Your task to perform on an android device: Do I have any events tomorrow? Image 0: 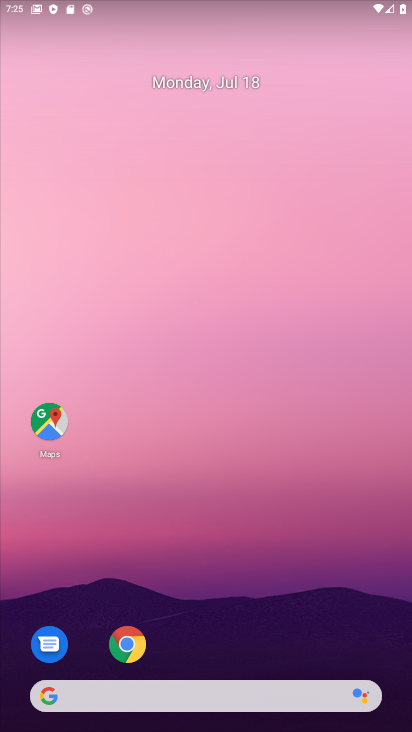
Step 0: drag from (242, 689) to (346, 195)
Your task to perform on an android device: Do I have any events tomorrow? Image 1: 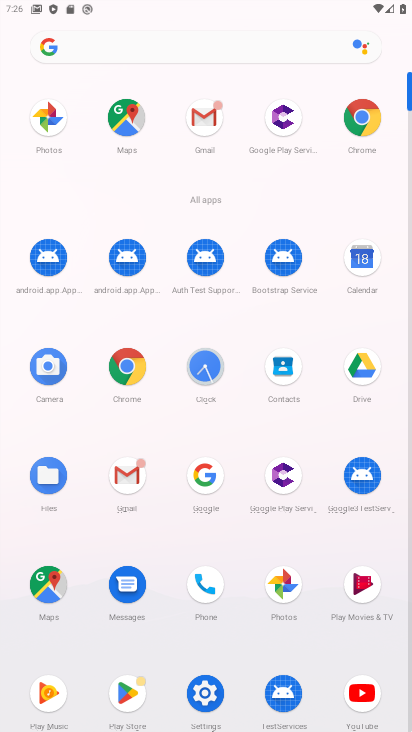
Step 1: click (359, 260)
Your task to perform on an android device: Do I have any events tomorrow? Image 2: 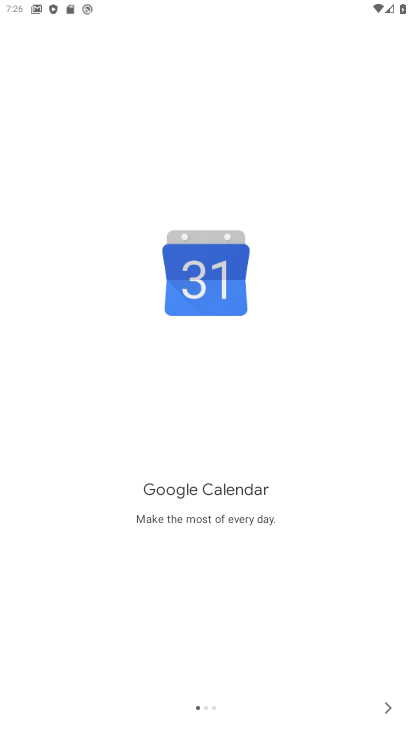
Step 2: click (392, 707)
Your task to perform on an android device: Do I have any events tomorrow? Image 3: 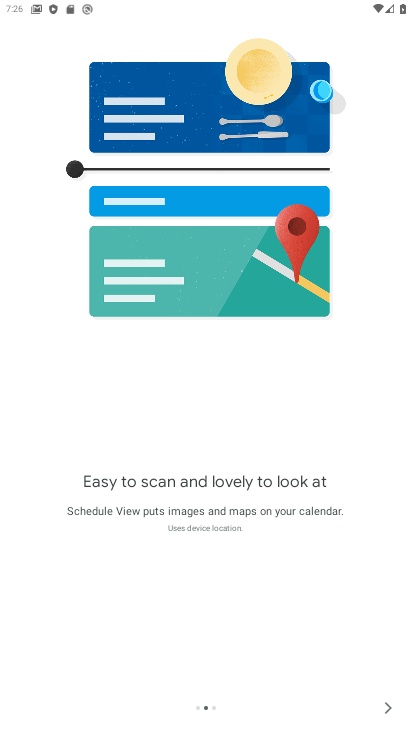
Step 3: click (394, 700)
Your task to perform on an android device: Do I have any events tomorrow? Image 4: 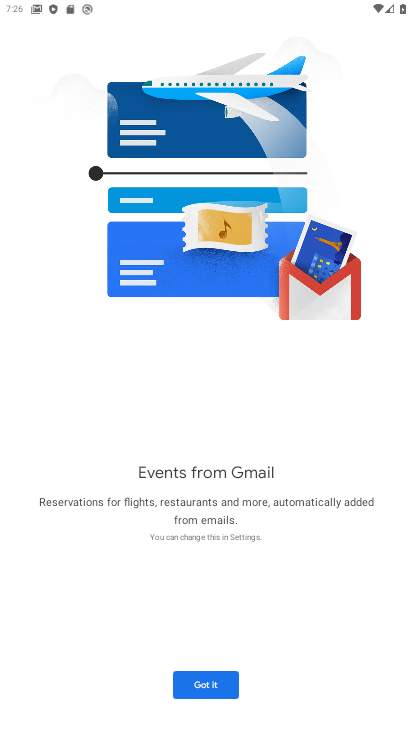
Step 4: click (216, 694)
Your task to perform on an android device: Do I have any events tomorrow? Image 5: 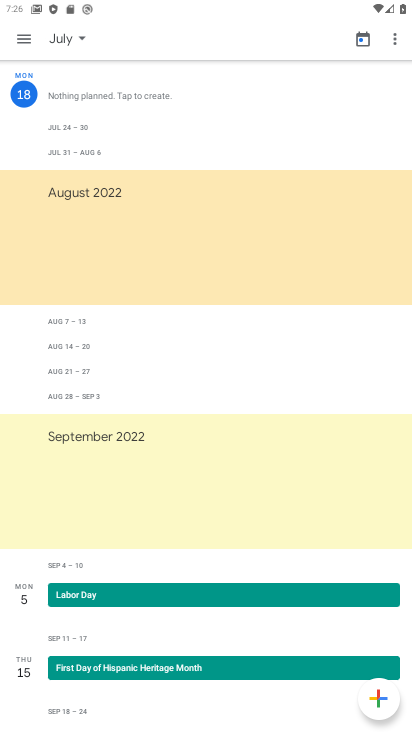
Step 5: click (64, 42)
Your task to perform on an android device: Do I have any events tomorrow? Image 6: 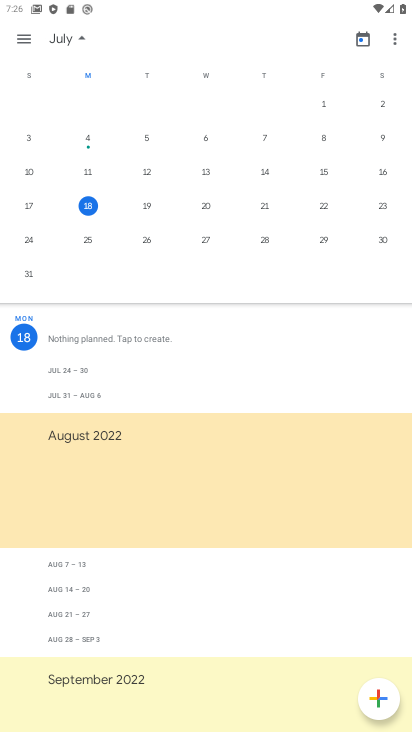
Step 6: click (154, 206)
Your task to perform on an android device: Do I have any events tomorrow? Image 7: 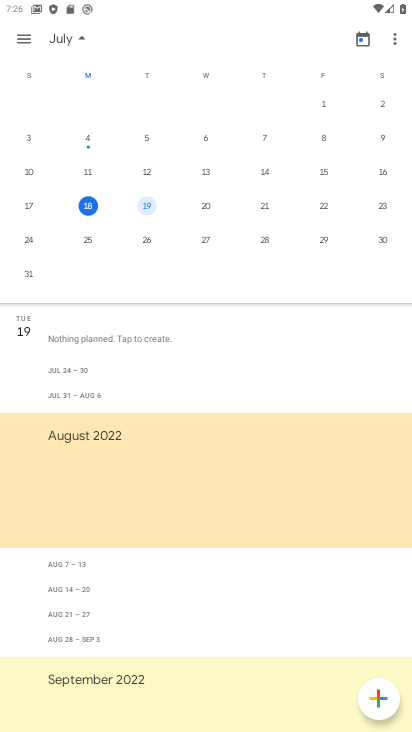
Step 7: click (22, 27)
Your task to perform on an android device: Do I have any events tomorrow? Image 8: 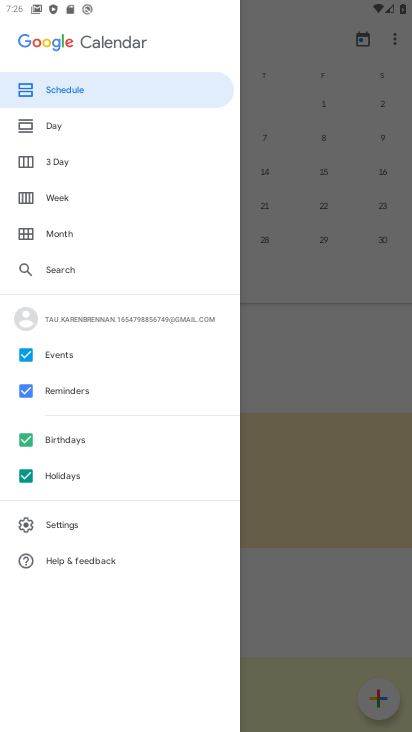
Step 8: click (82, 121)
Your task to perform on an android device: Do I have any events tomorrow? Image 9: 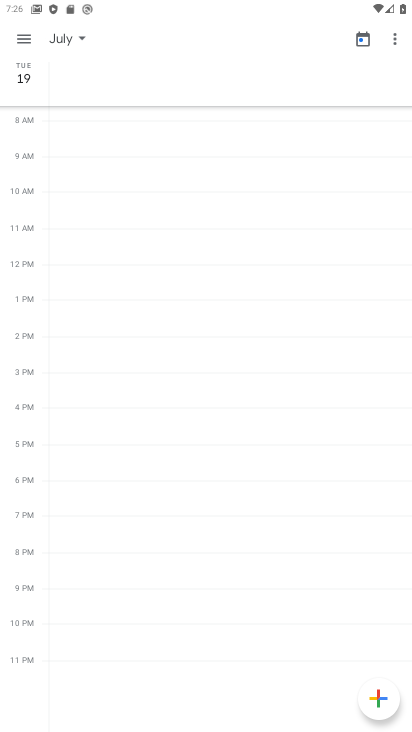
Step 9: click (27, 35)
Your task to perform on an android device: Do I have any events tomorrow? Image 10: 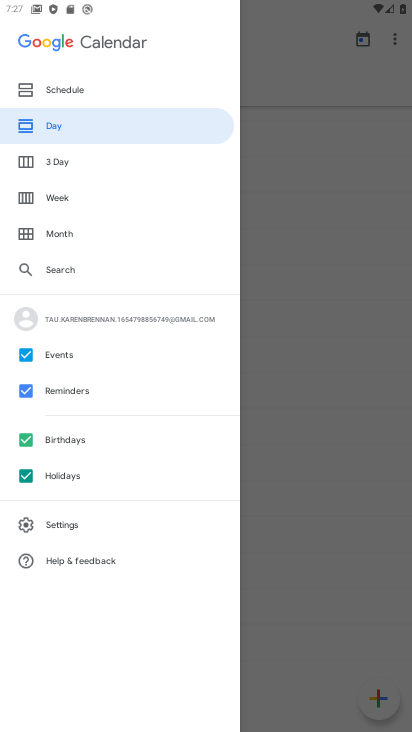
Step 10: click (77, 87)
Your task to perform on an android device: Do I have any events tomorrow? Image 11: 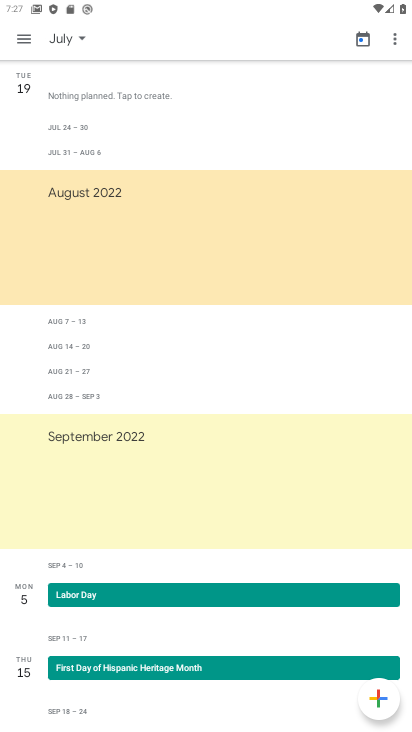
Step 11: task complete